Your task to perform on an android device: Open Youtube and go to "Your channel" Image 0: 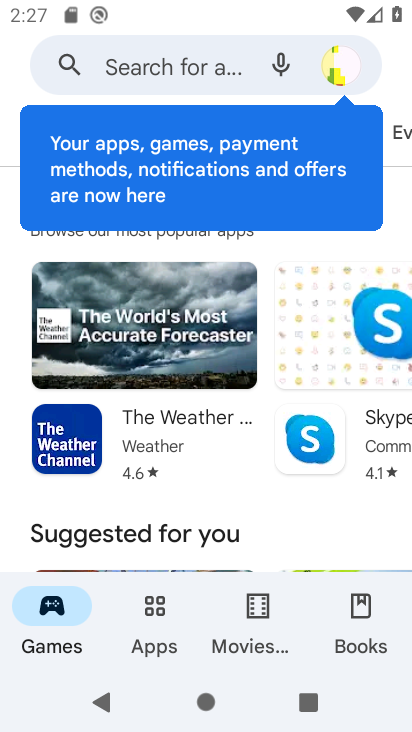
Step 0: press home button
Your task to perform on an android device: Open Youtube and go to "Your channel" Image 1: 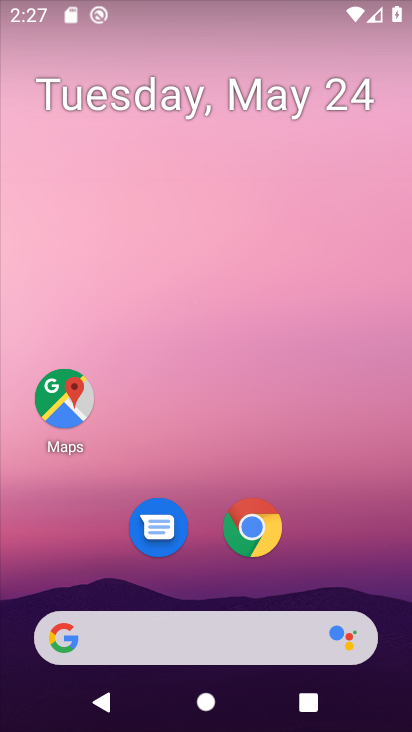
Step 1: drag from (345, 587) to (351, 17)
Your task to perform on an android device: Open Youtube and go to "Your channel" Image 2: 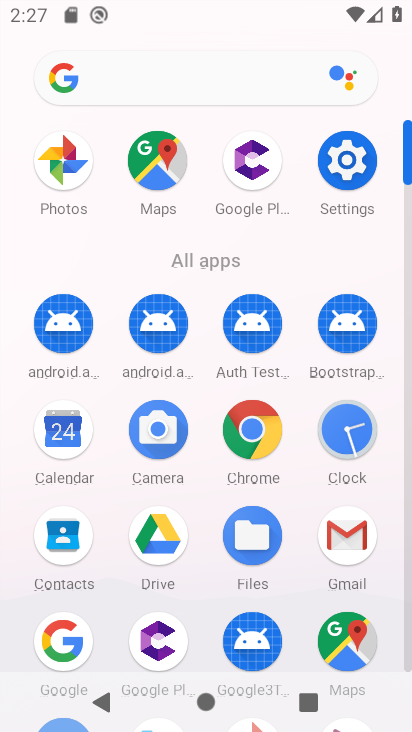
Step 2: click (407, 524)
Your task to perform on an android device: Open Youtube and go to "Your channel" Image 3: 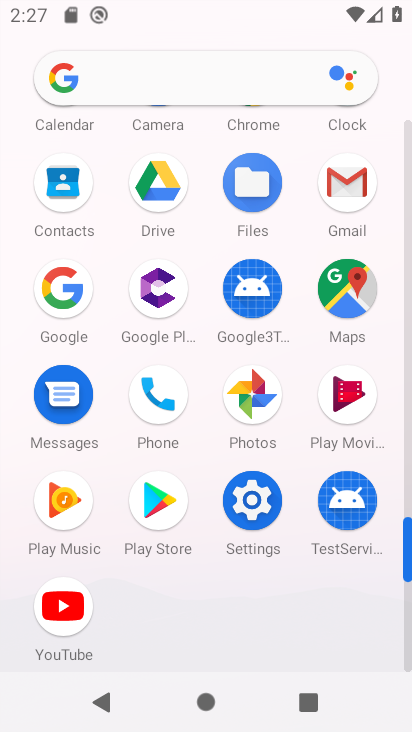
Step 3: click (49, 614)
Your task to perform on an android device: Open Youtube and go to "Your channel" Image 4: 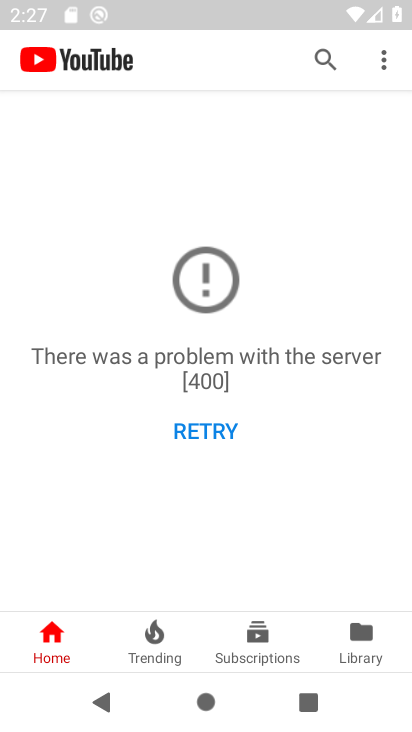
Step 4: task complete